Your task to perform on an android device: Open eBay Image 0: 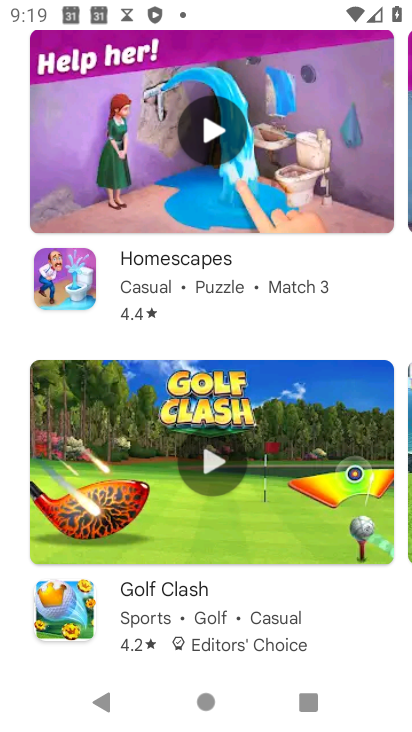
Step 0: press home button
Your task to perform on an android device: Open eBay Image 1: 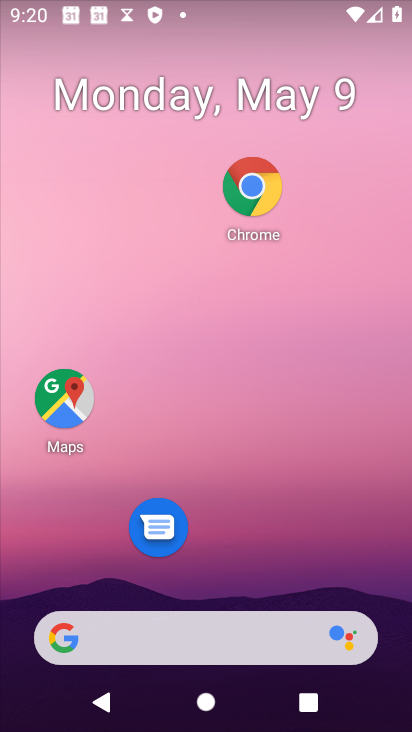
Step 1: click (249, 187)
Your task to perform on an android device: Open eBay Image 2: 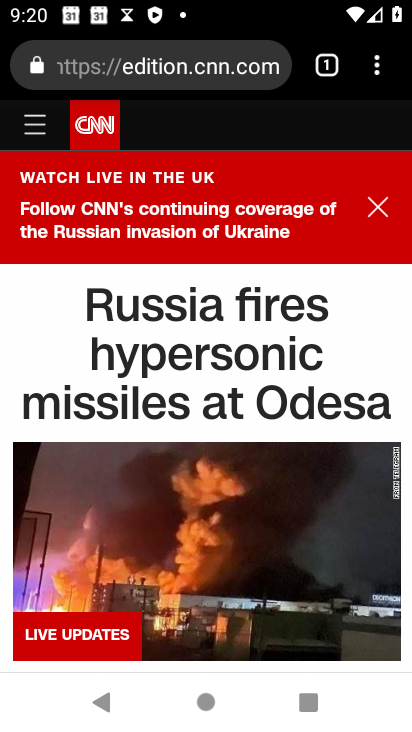
Step 2: click (319, 64)
Your task to perform on an android device: Open eBay Image 3: 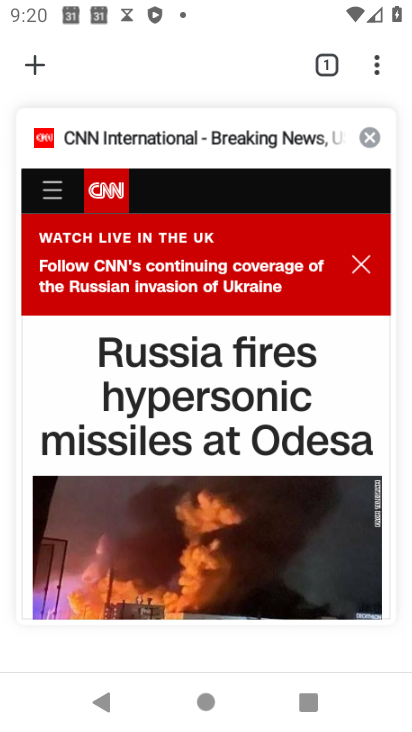
Step 3: click (371, 133)
Your task to perform on an android device: Open eBay Image 4: 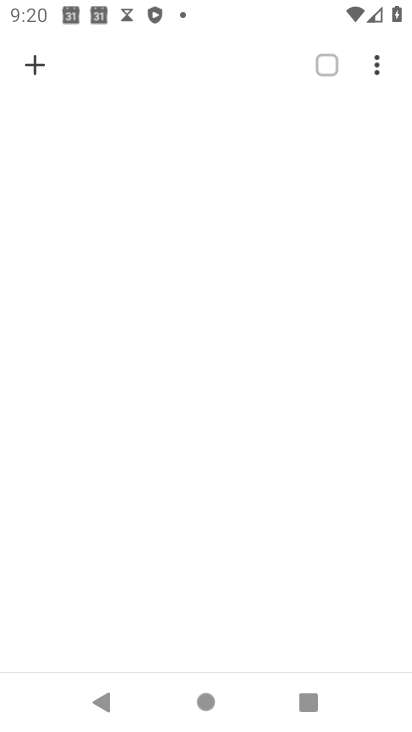
Step 4: click (33, 71)
Your task to perform on an android device: Open eBay Image 5: 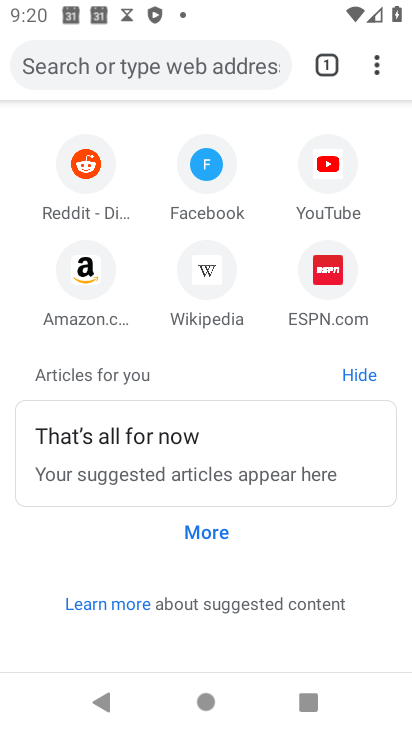
Step 5: click (106, 56)
Your task to perform on an android device: Open eBay Image 6: 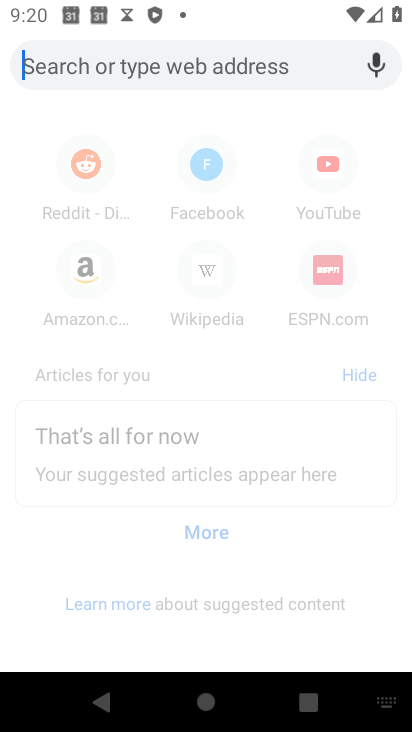
Step 6: type "ebay"
Your task to perform on an android device: Open eBay Image 7: 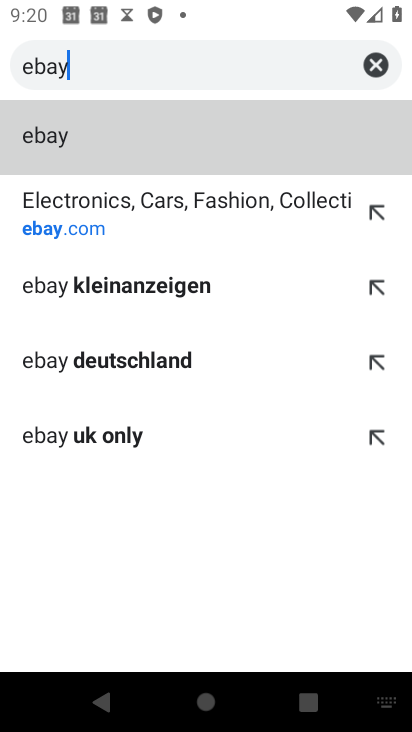
Step 7: click (119, 217)
Your task to perform on an android device: Open eBay Image 8: 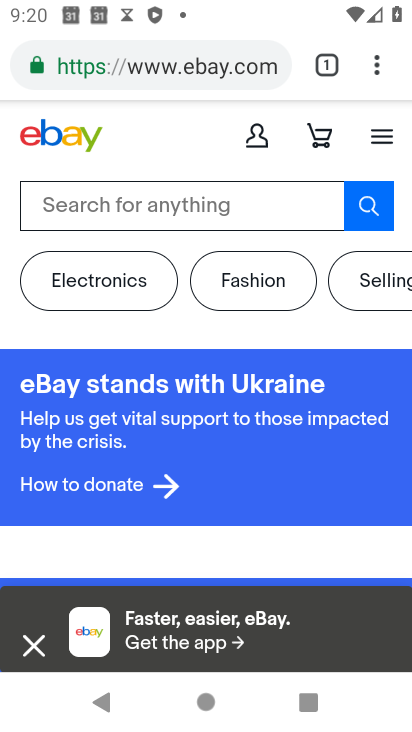
Step 8: task complete